Your task to perform on an android device: open app "HBO Max: Stream TV & Movies" (install if not already installed) Image 0: 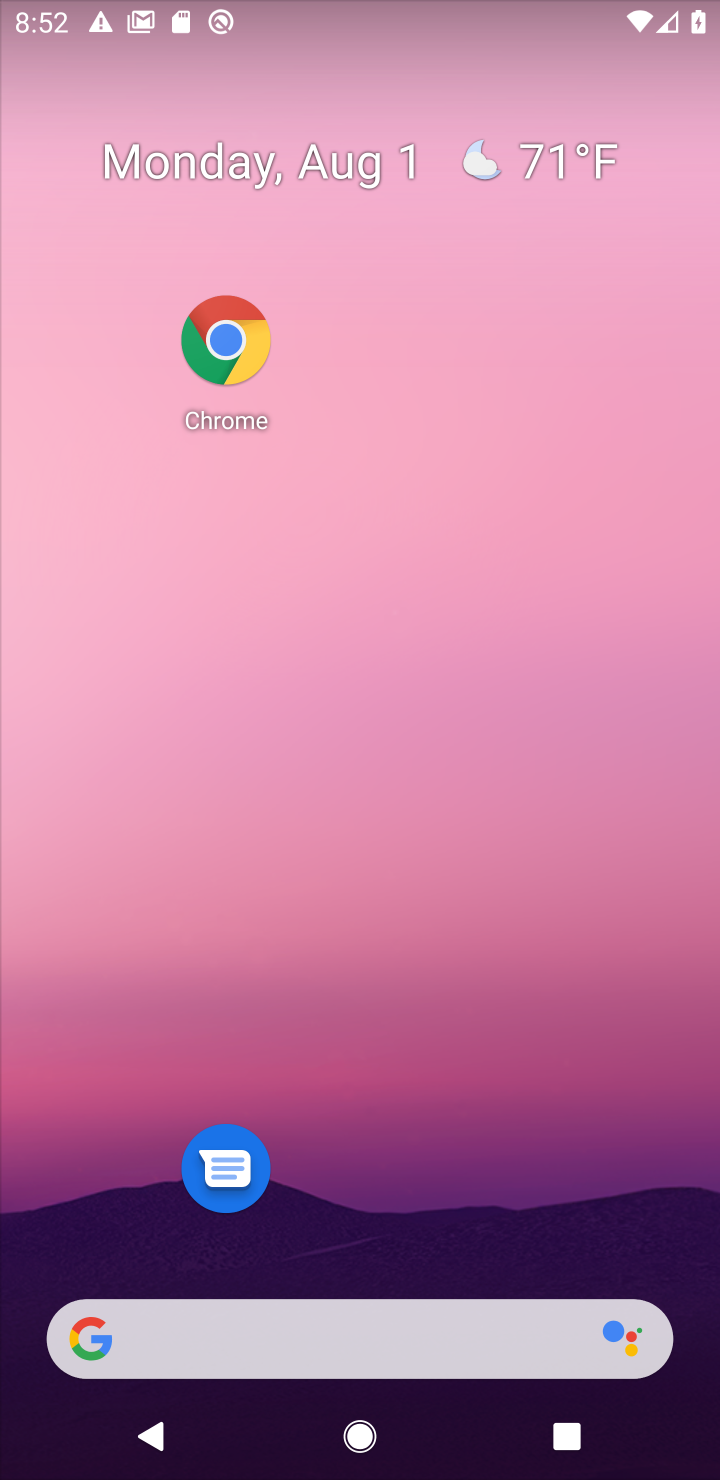
Step 0: drag from (478, 836) to (460, 742)
Your task to perform on an android device: open app "HBO Max: Stream TV & Movies" (install if not already installed) Image 1: 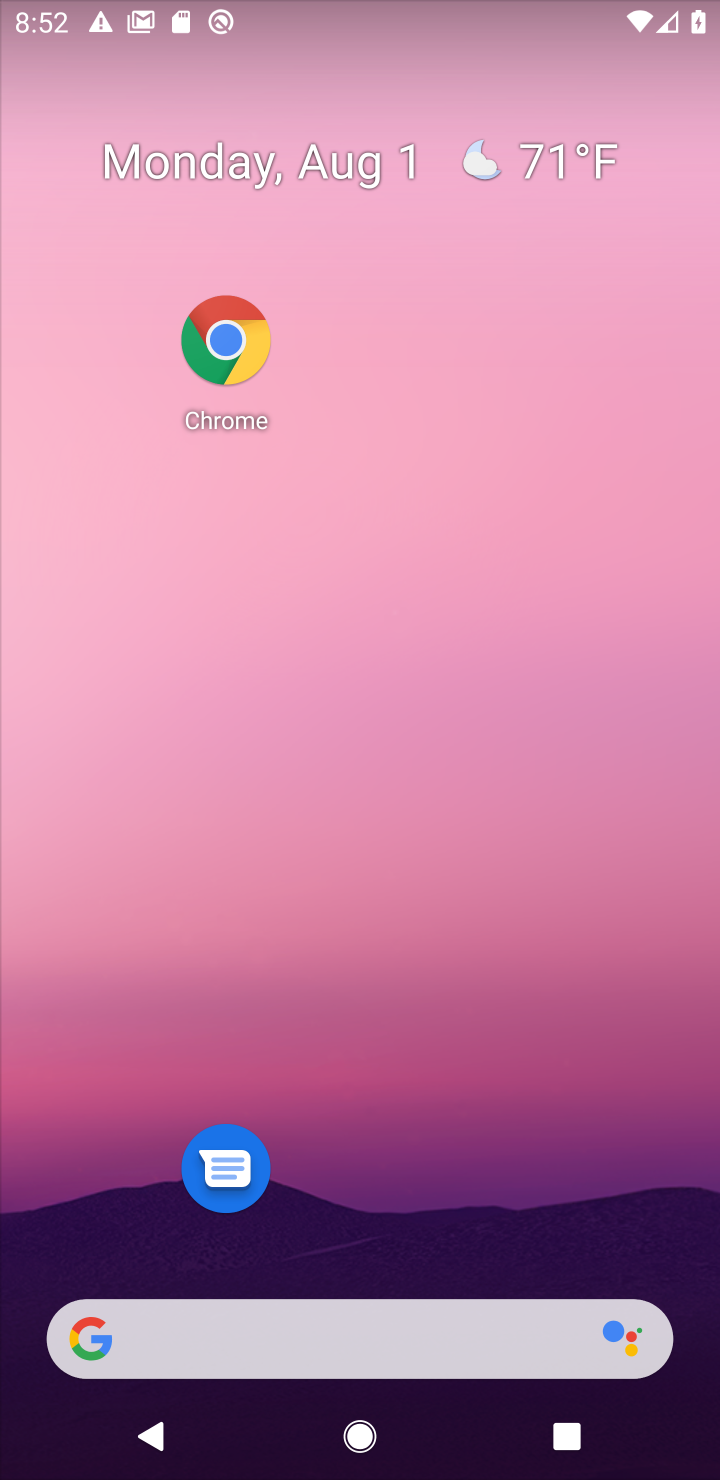
Step 1: click (379, 574)
Your task to perform on an android device: open app "HBO Max: Stream TV & Movies" (install if not already installed) Image 2: 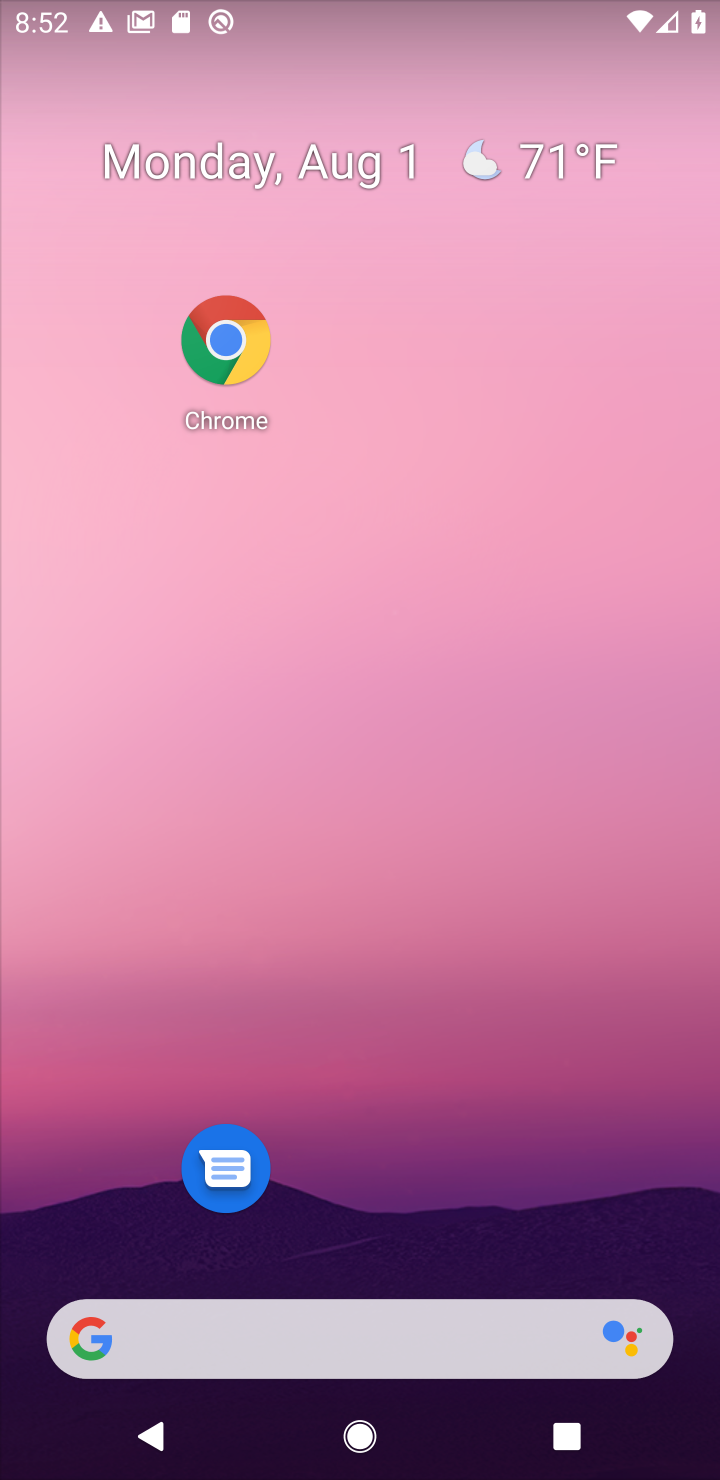
Step 2: drag from (362, 1035) to (400, 122)
Your task to perform on an android device: open app "HBO Max: Stream TV & Movies" (install if not already installed) Image 3: 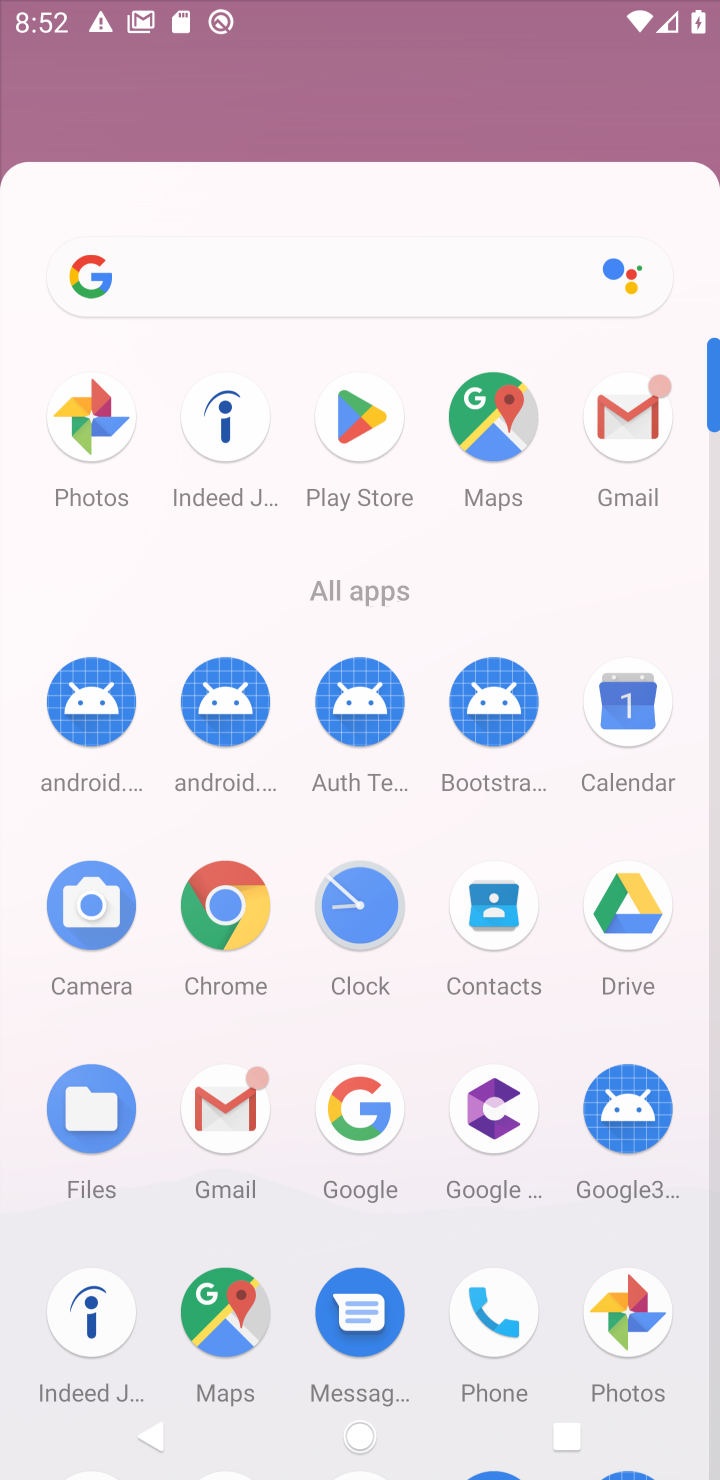
Step 3: drag from (392, 496) to (491, 183)
Your task to perform on an android device: open app "HBO Max: Stream TV & Movies" (install if not already installed) Image 4: 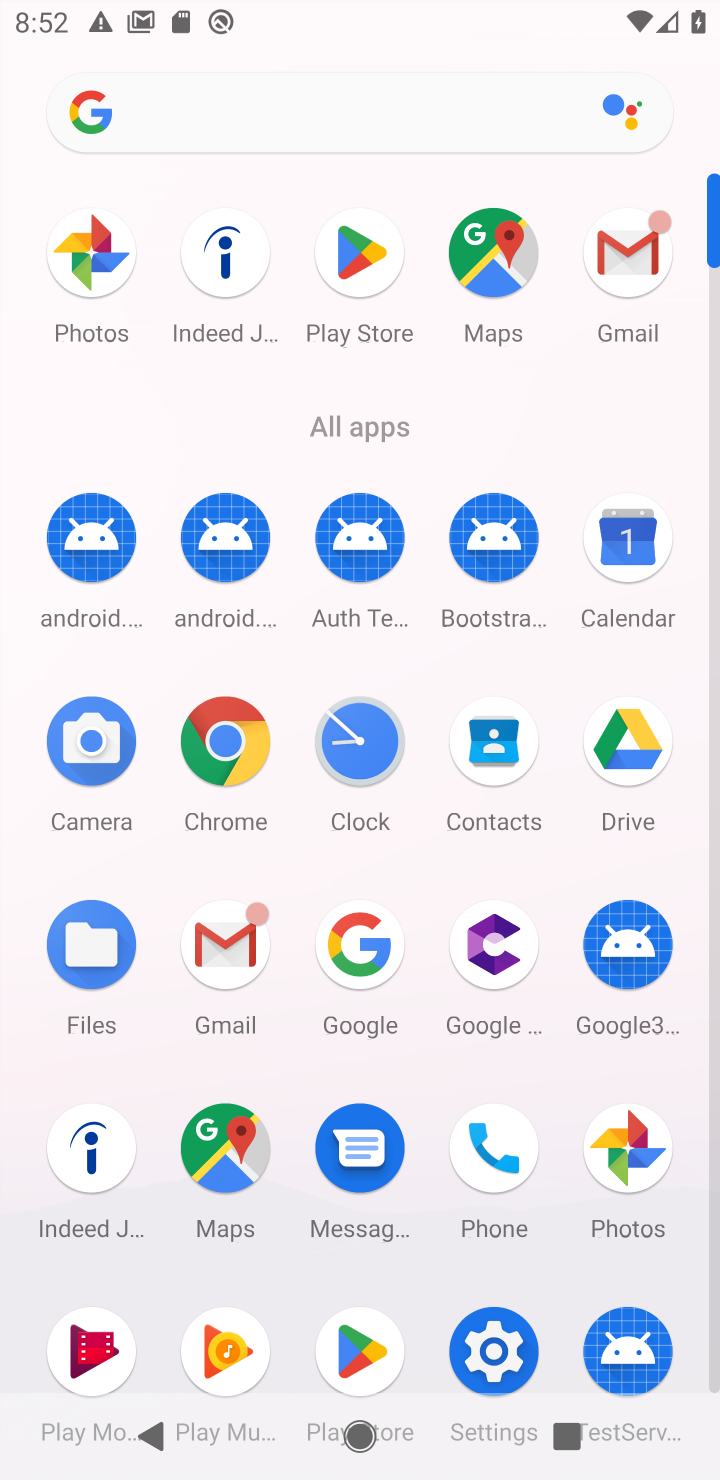
Step 4: type "HBO Max"
Your task to perform on an android device: open app "HBO Max: Stream TV & Movies" (install if not already installed) Image 5: 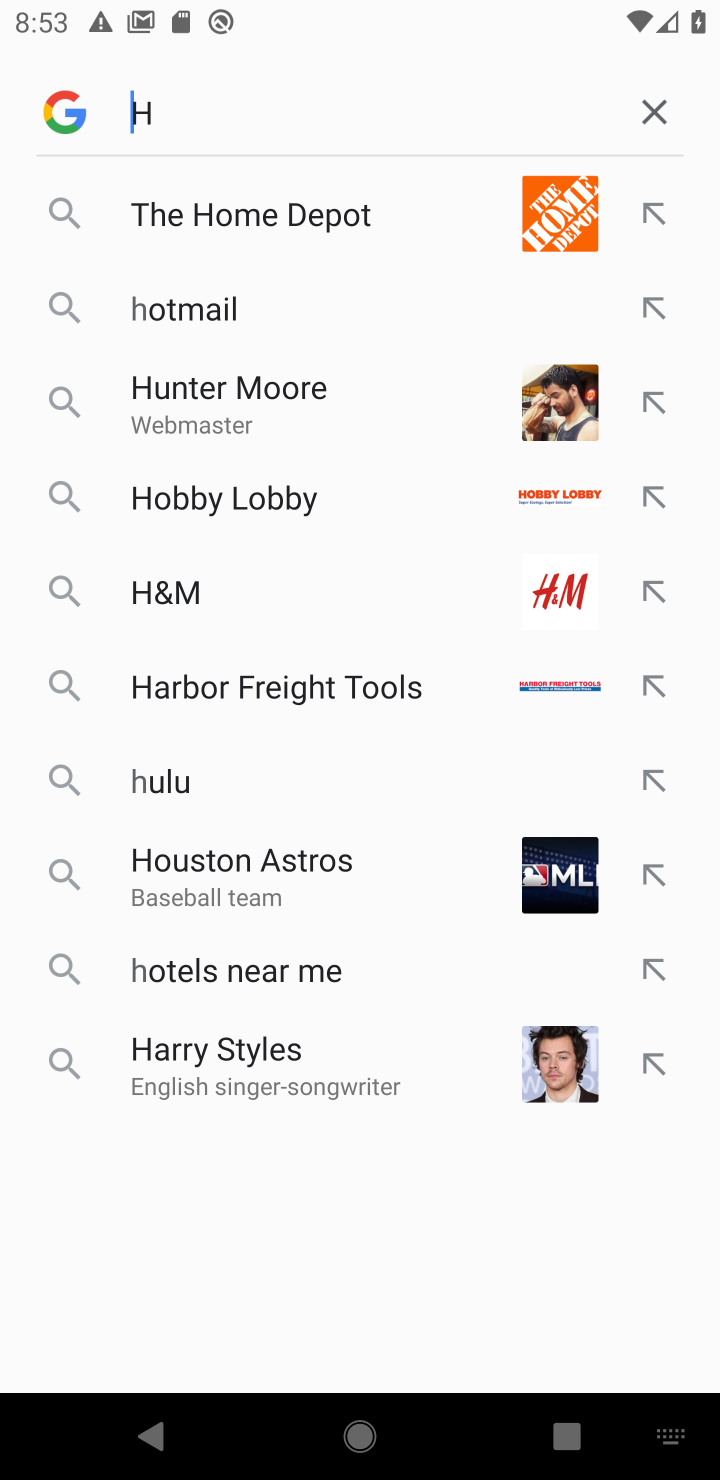
Step 5: click (648, 111)
Your task to perform on an android device: open app "HBO Max: Stream TV & Movies" (install if not already installed) Image 6: 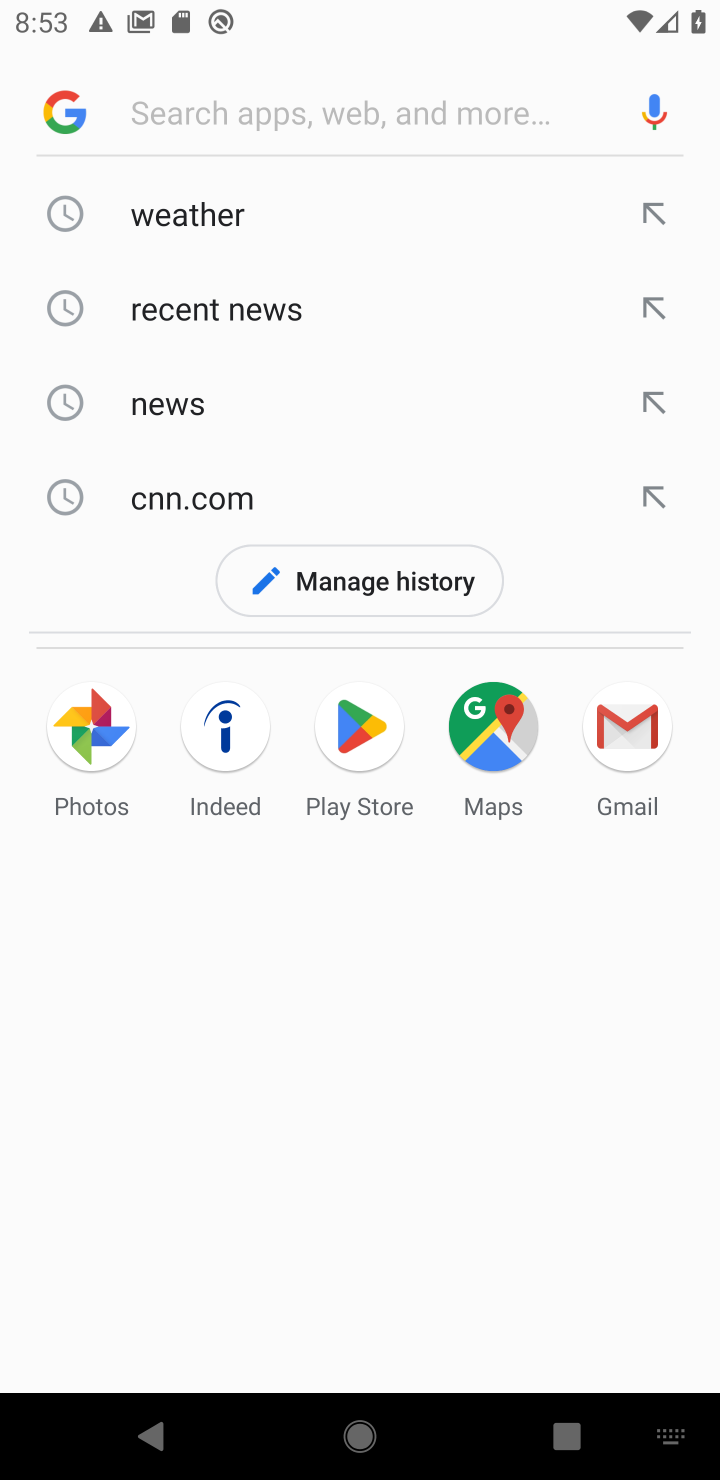
Step 6: press back button
Your task to perform on an android device: open app "HBO Max: Stream TV & Movies" (install if not already installed) Image 7: 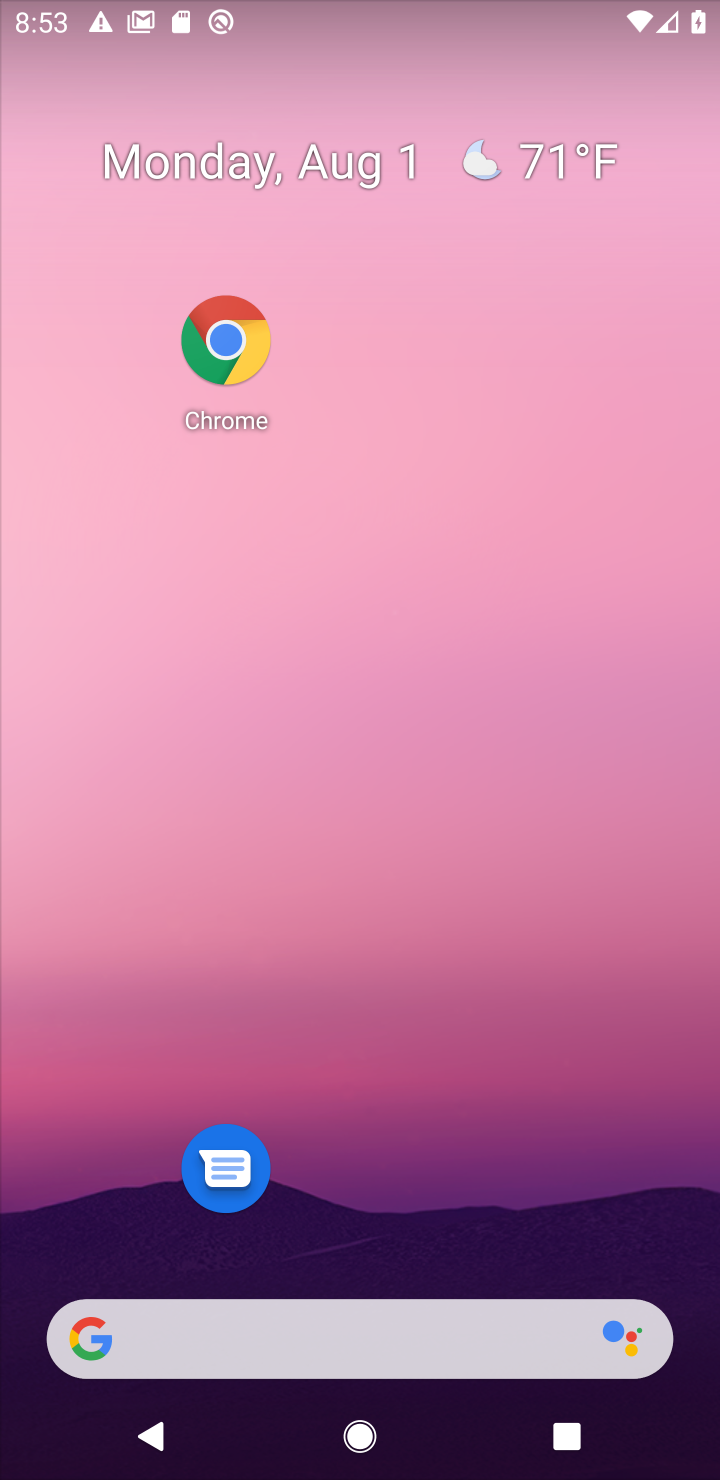
Step 7: drag from (373, 1229) to (423, 19)
Your task to perform on an android device: open app "HBO Max: Stream TV & Movies" (install if not already installed) Image 8: 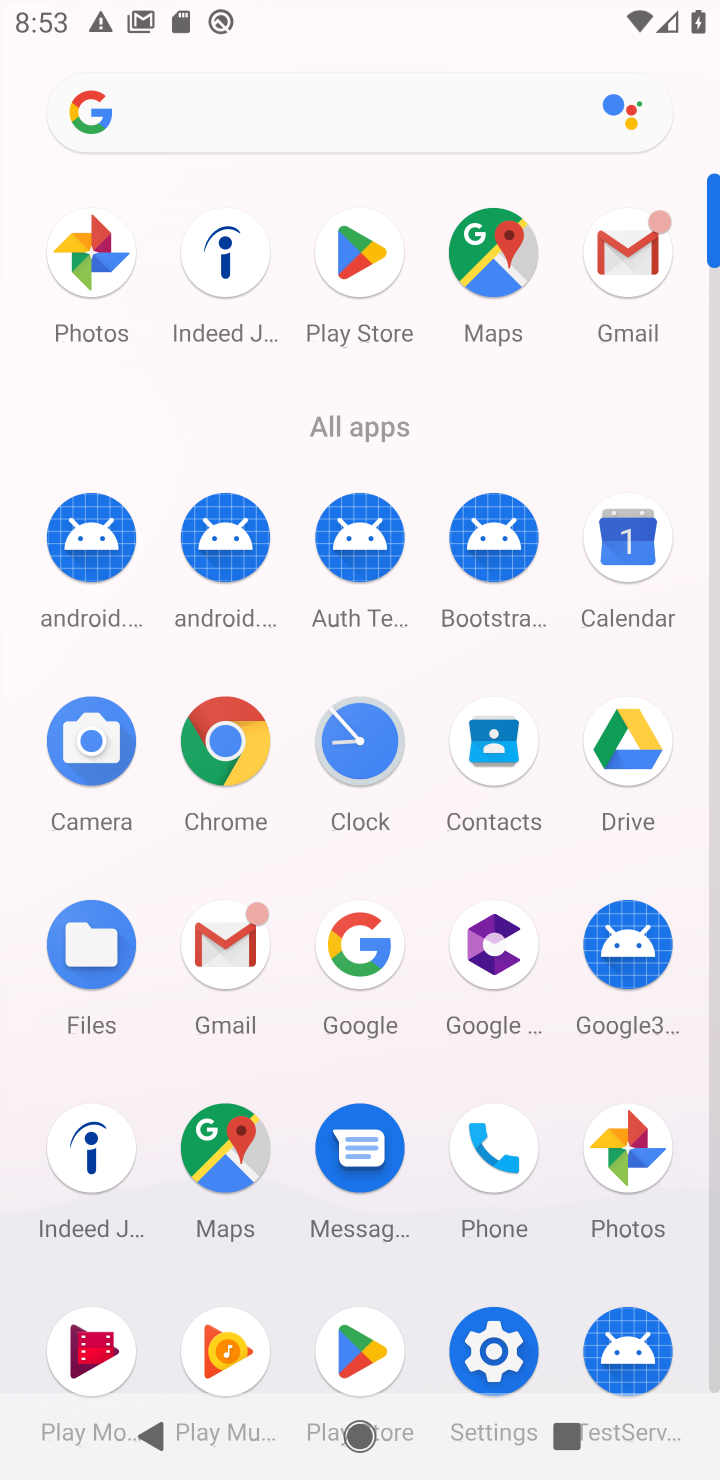
Step 8: click (364, 1352)
Your task to perform on an android device: open app "HBO Max: Stream TV & Movies" (install if not already installed) Image 9: 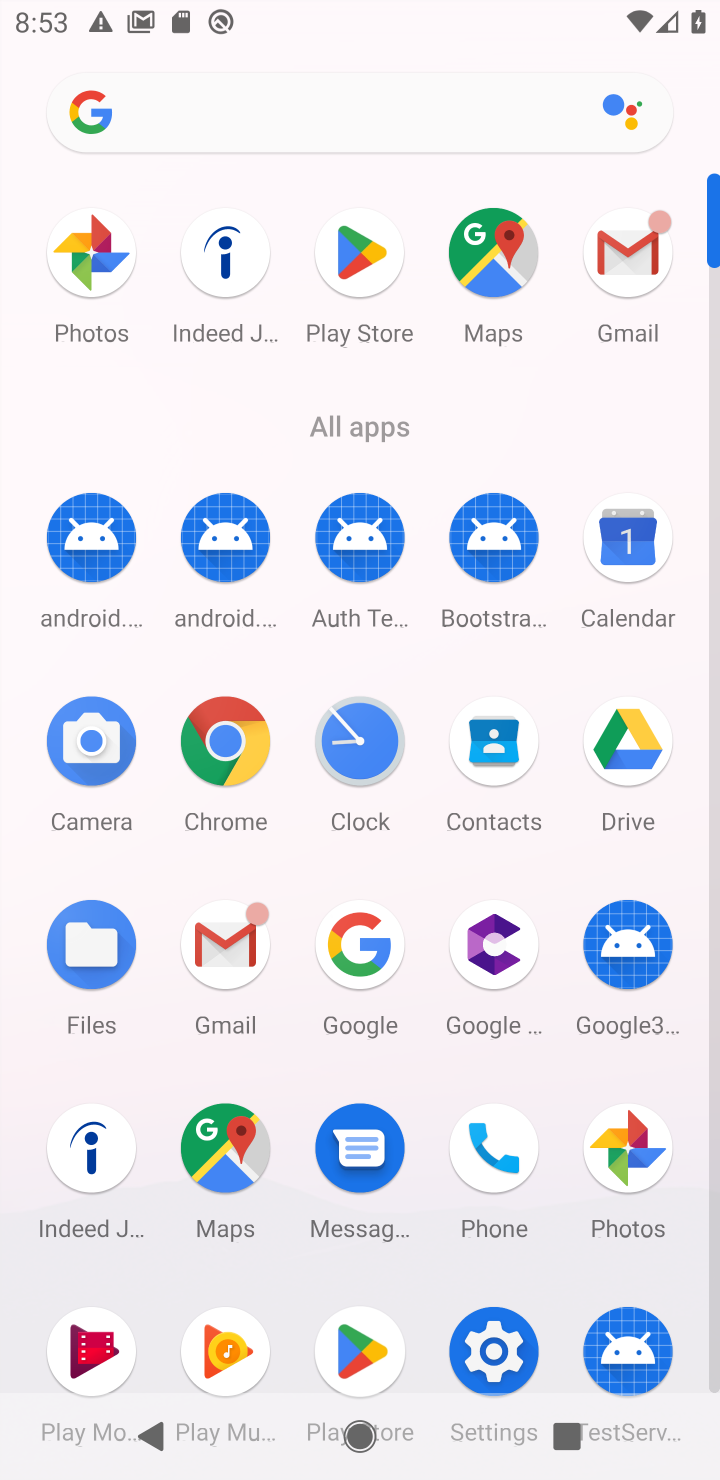
Step 9: click (377, 1358)
Your task to perform on an android device: open app "HBO Max: Stream TV & Movies" (install if not already installed) Image 10: 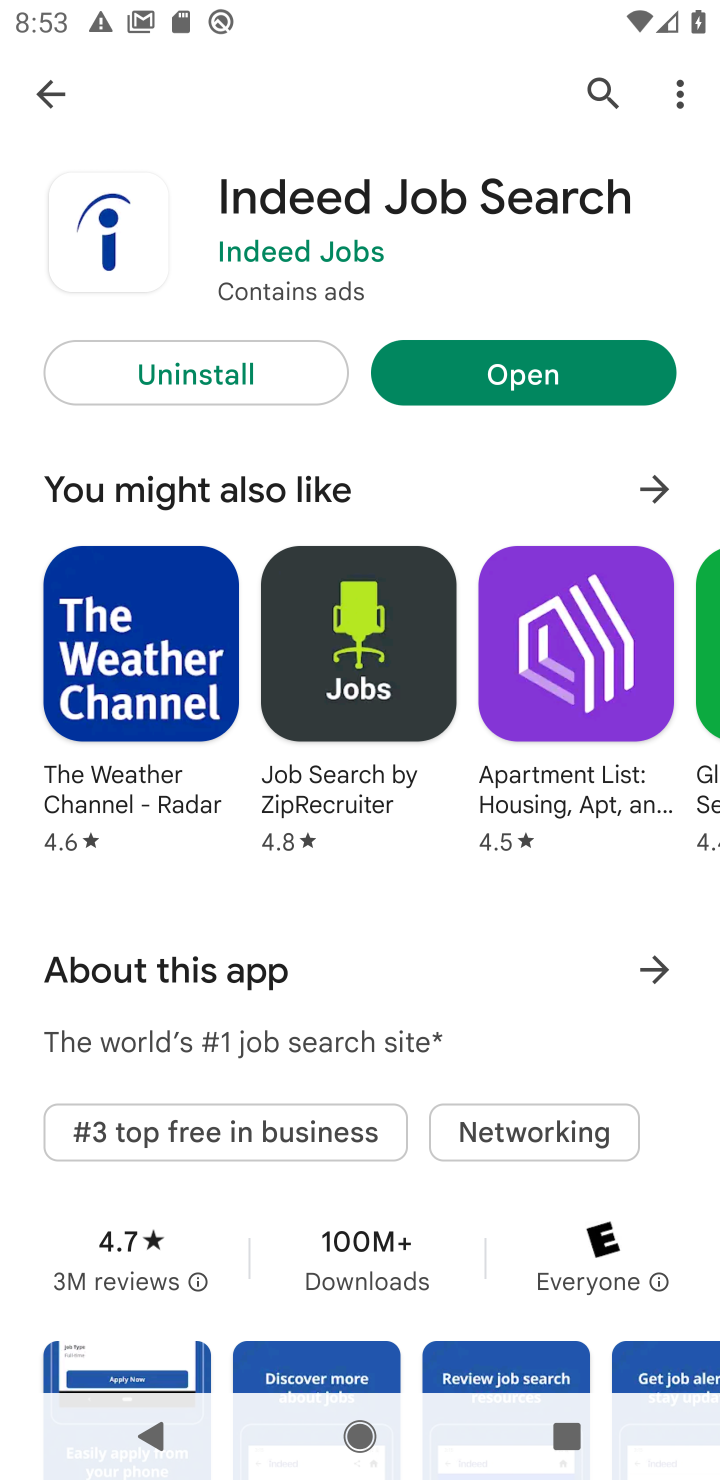
Step 10: click (51, 97)
Your task to perform on an android device: open app "HBO Max: Stream TV & Movies" (install if not already installed) Image 11: 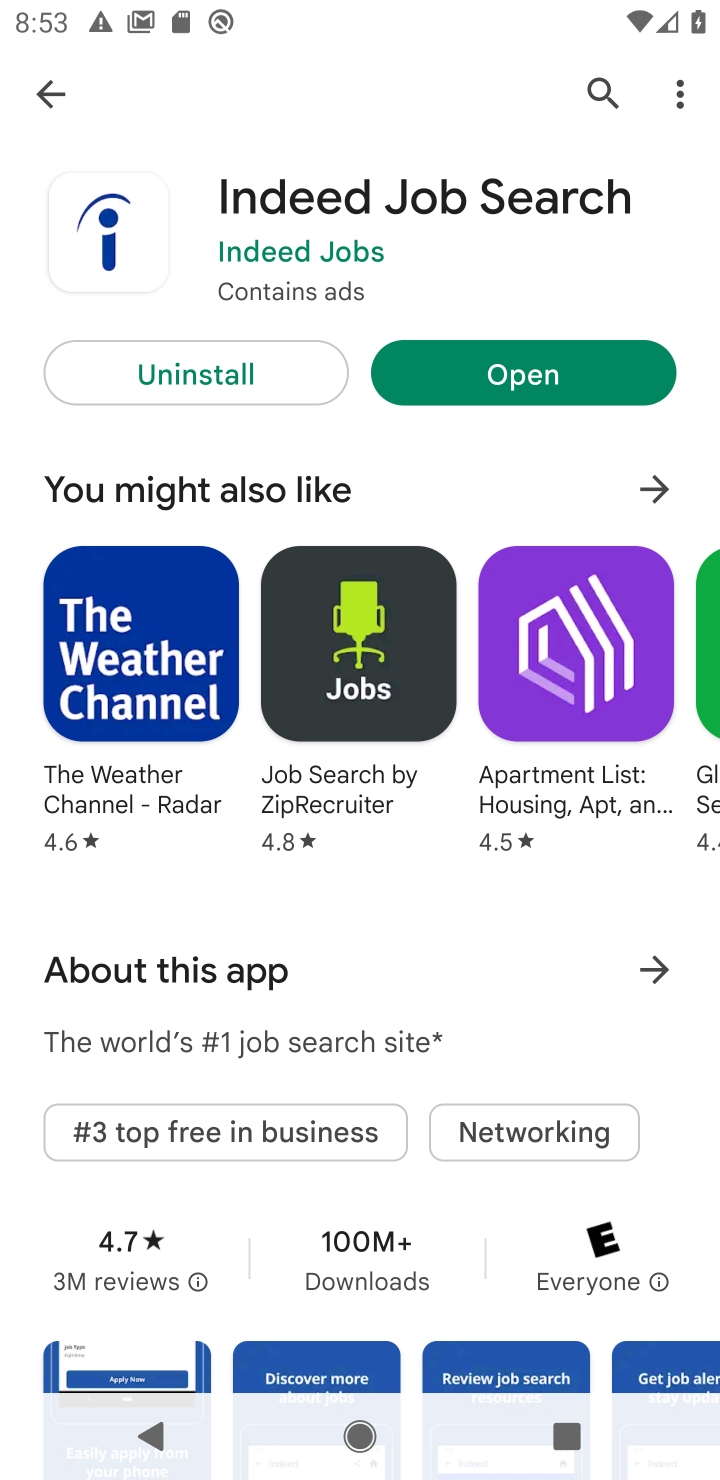
Step 11: click (48, 119)
Your task to perform on an android device: open app "HBO Max: Stream TV & Movies" (install if not already installed) Image 12: 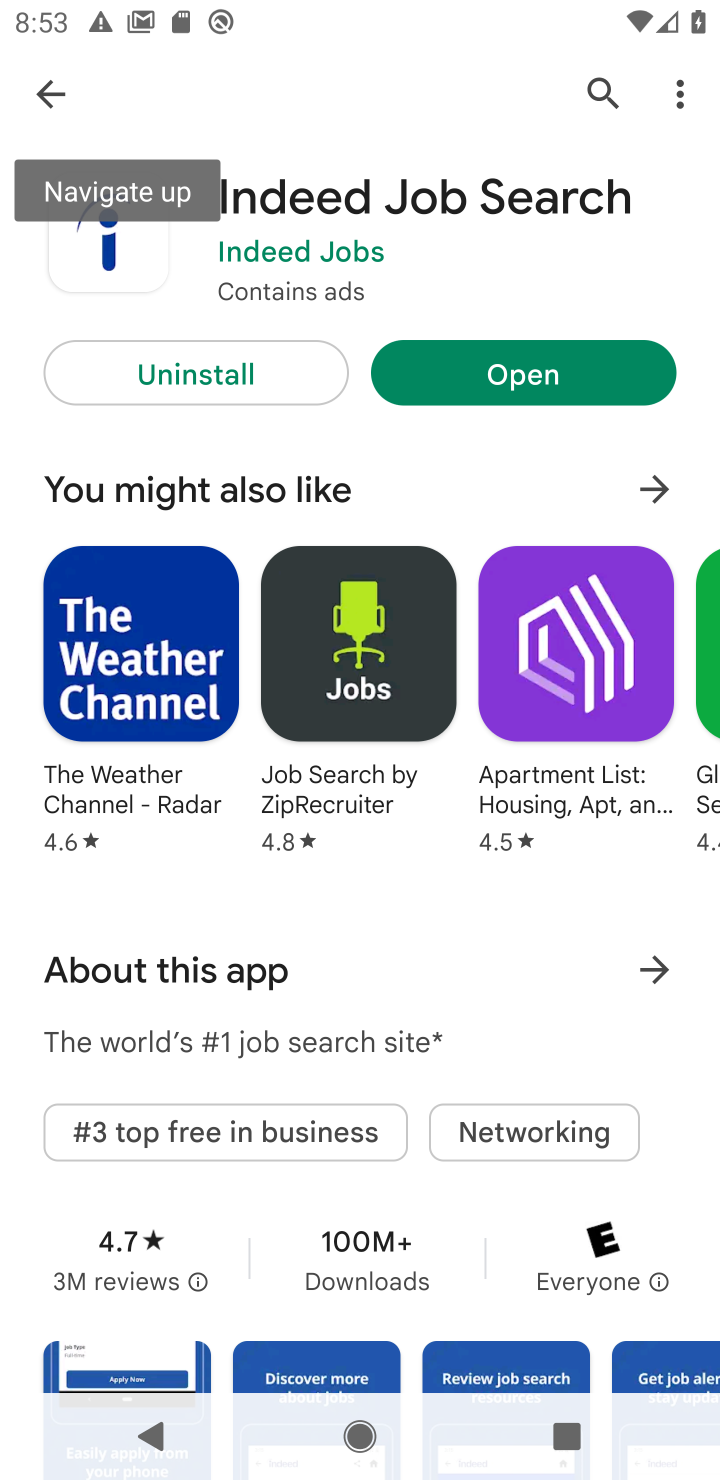
Step 12: click (70, 101)
Your task to perform on an android device: open app "HBO Max: Stream TV & Movies" (install if not already installed) Image 13: 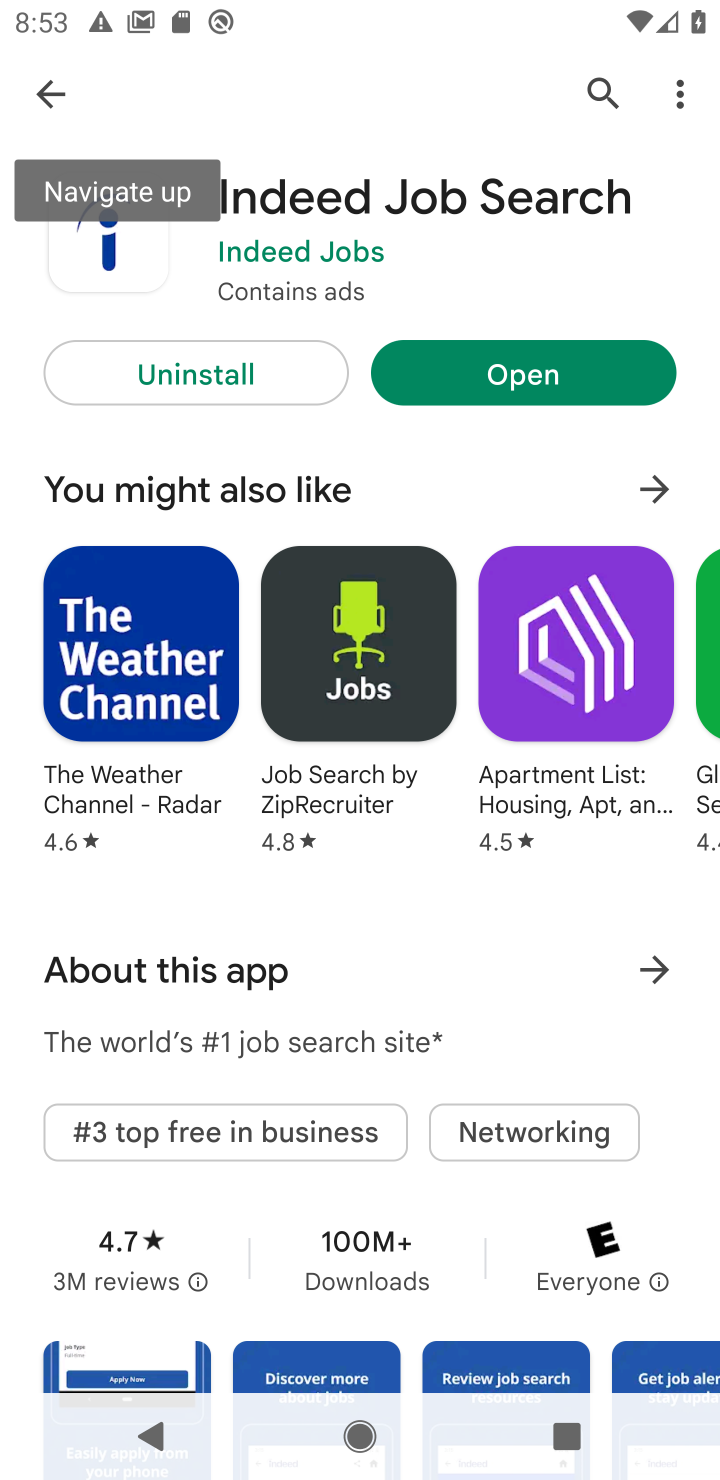
Step 13: click (45, 90)
Your task to perform on an android device: open app "HBO Max: Stream TV & Movies" (install if not already installed) Image 14: 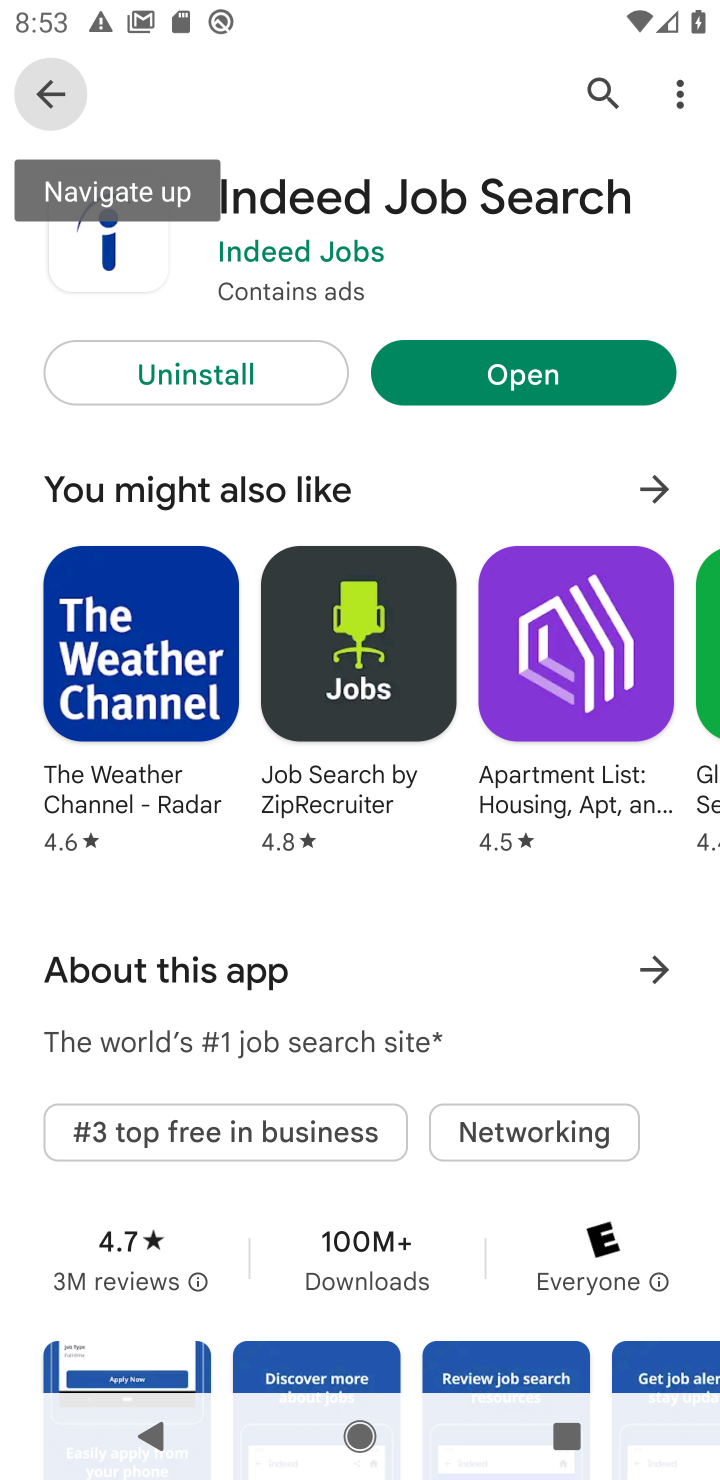
Step 14: click (58, 98)
Your task to perform on an android device: open app "HBO Max: Stream TV & Movies" (install if not already installed) Image 15: 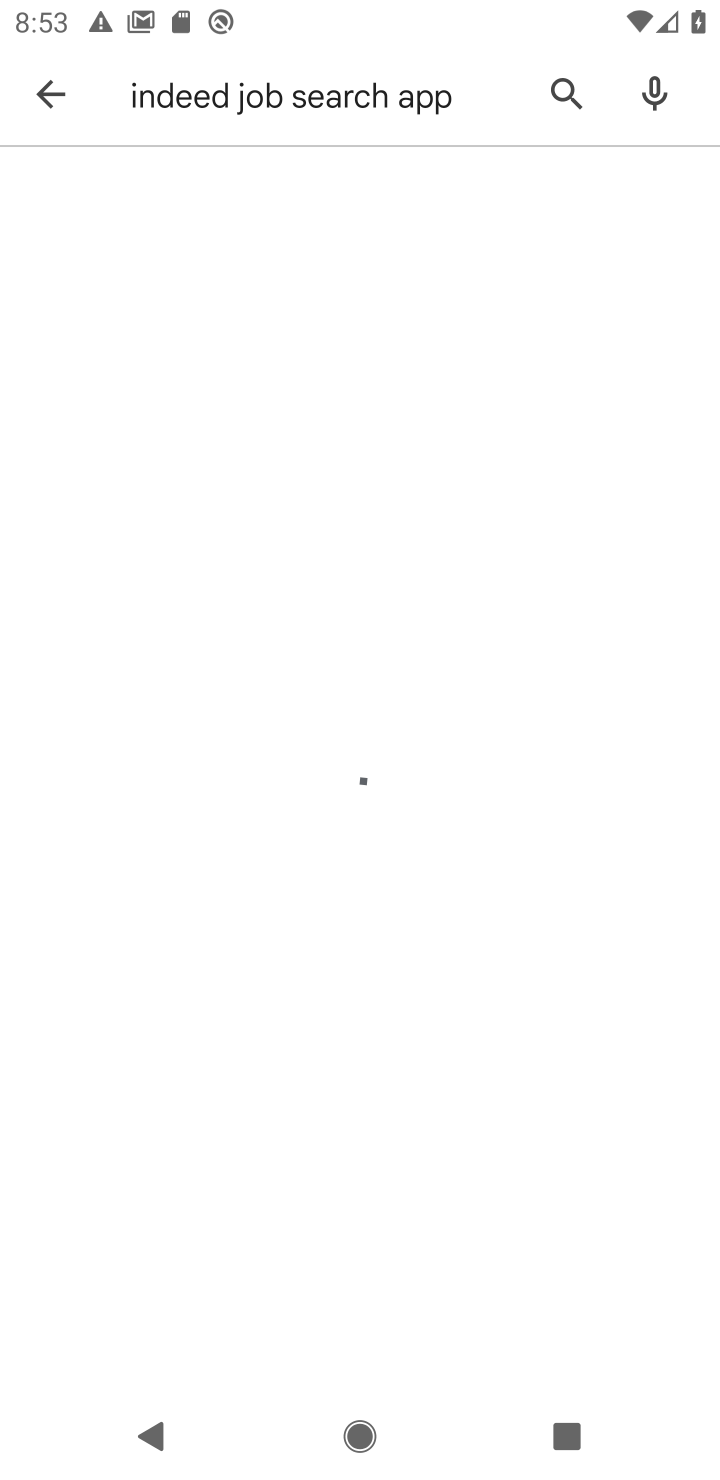
Step 15: click (65, 95)
Your task to perform on an android device: open app "HBO Max: Stream TV & Movies" (install if not already installed) Image 16: 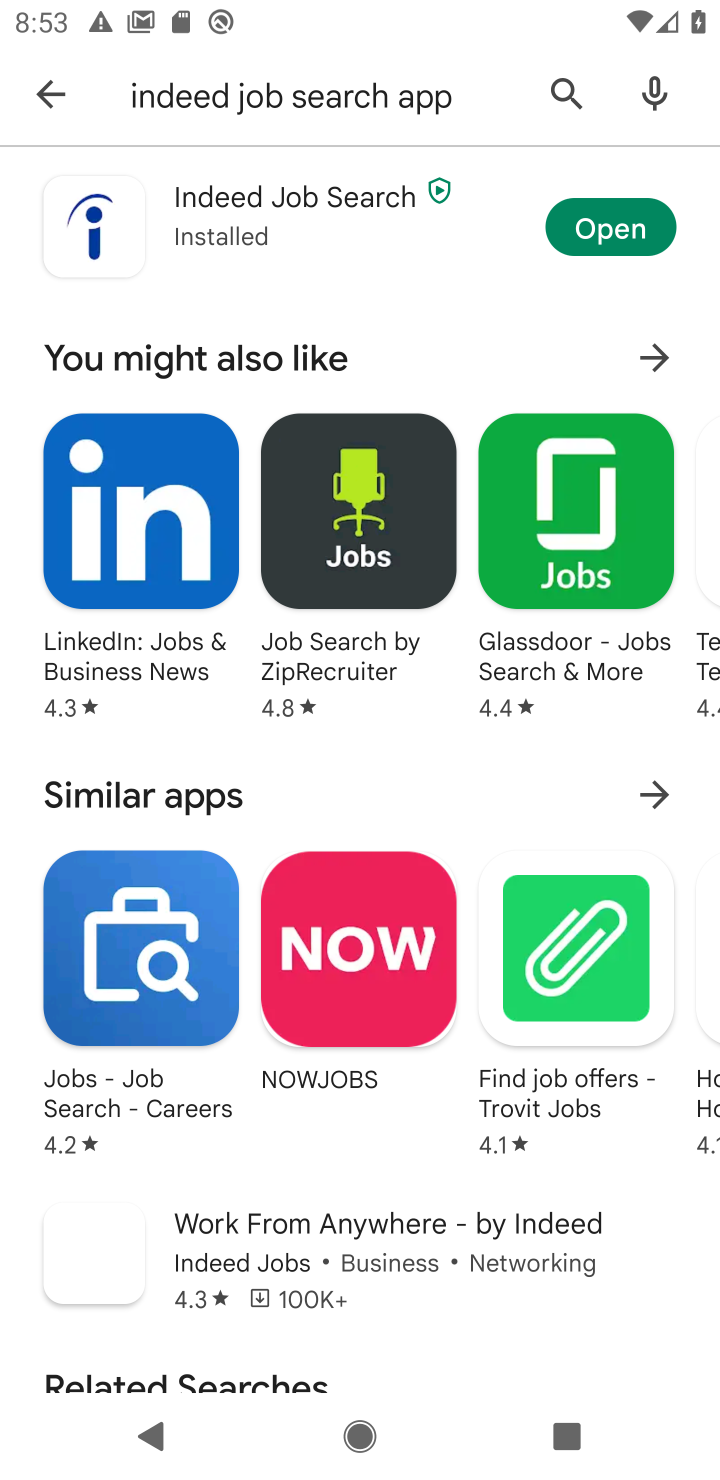
Step 16: click (63, 83)
Your task to perform on an android device: open app "HBO Max: Stream TV & Movies" (install if not already installed) Image 17: 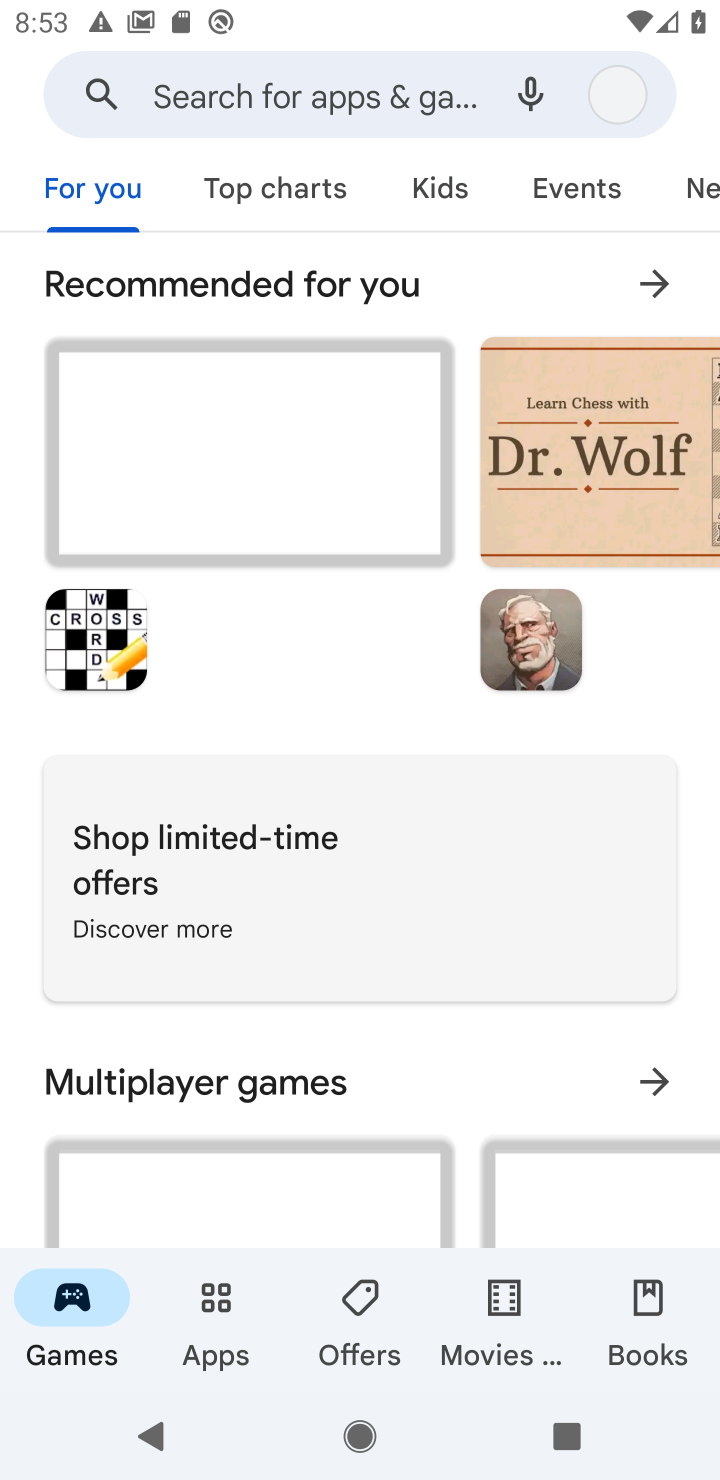
Step 17: click (68, 77)
Your task to perform on an android device: open app "HBO Max: Stream TV & Movies" (install if not already installed) Image 18: 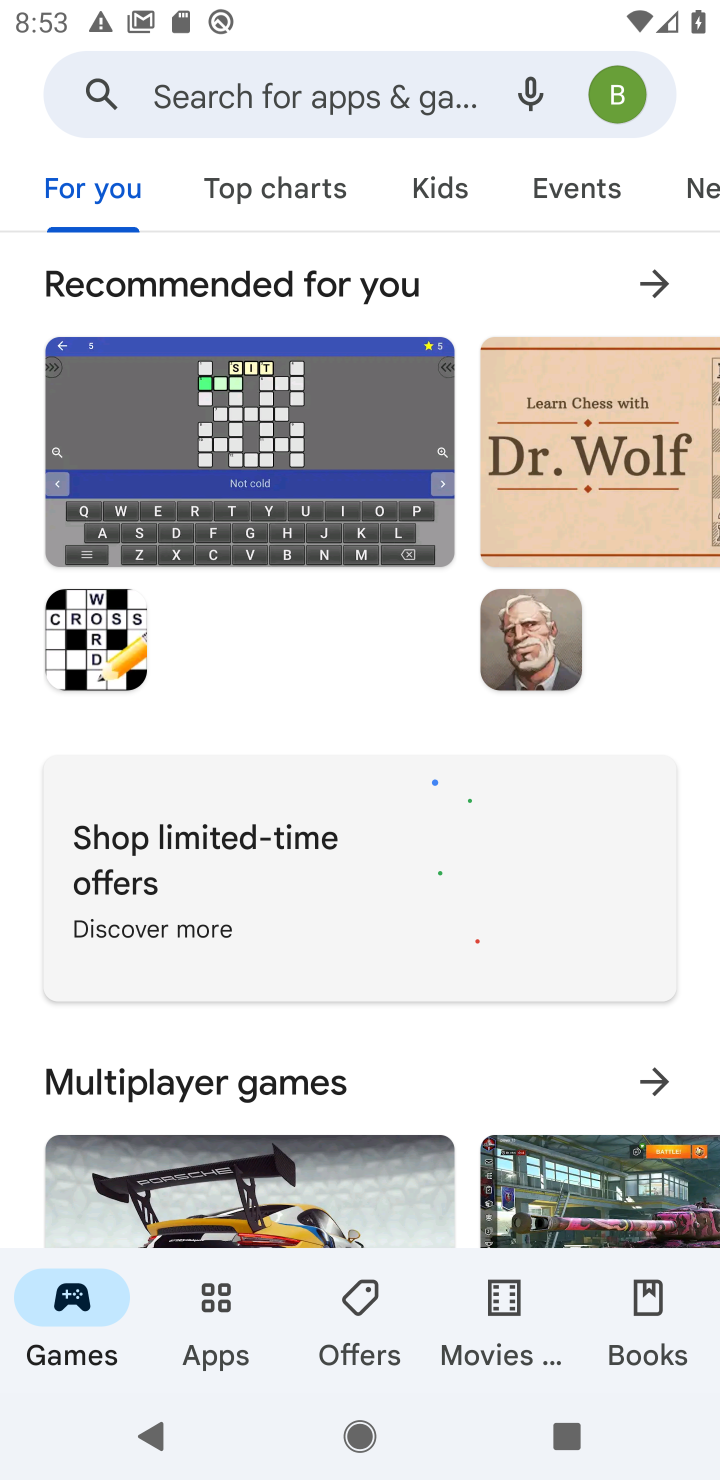
Step 18: click (220, 66)
Your task to perform on an android device: open app "HBO Max: Stream TV & Movies" (install if not already installed) Image 19: 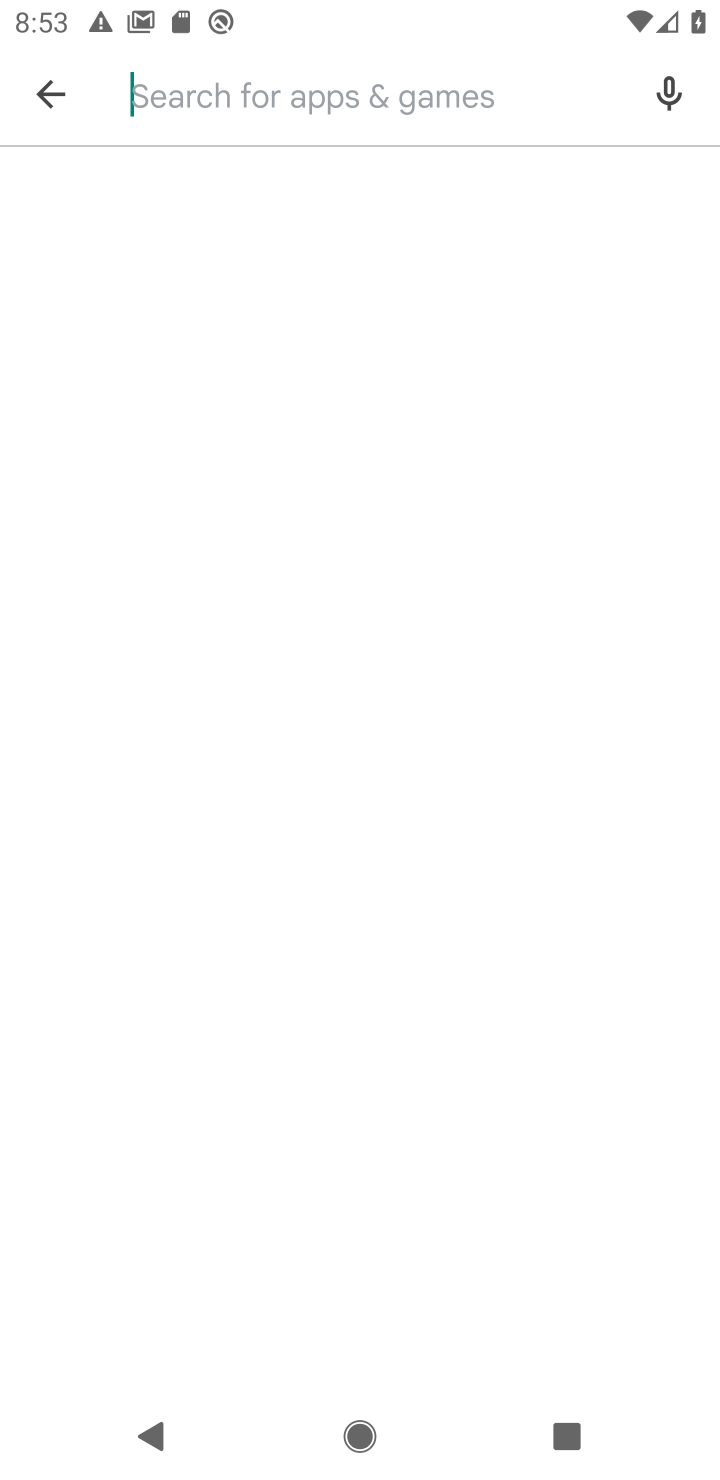
Step 19: click (220, 66)
Your task to perform on an android device: open app "HBO Max: Stream TV & Movies" (install if not already installed) Image 20: 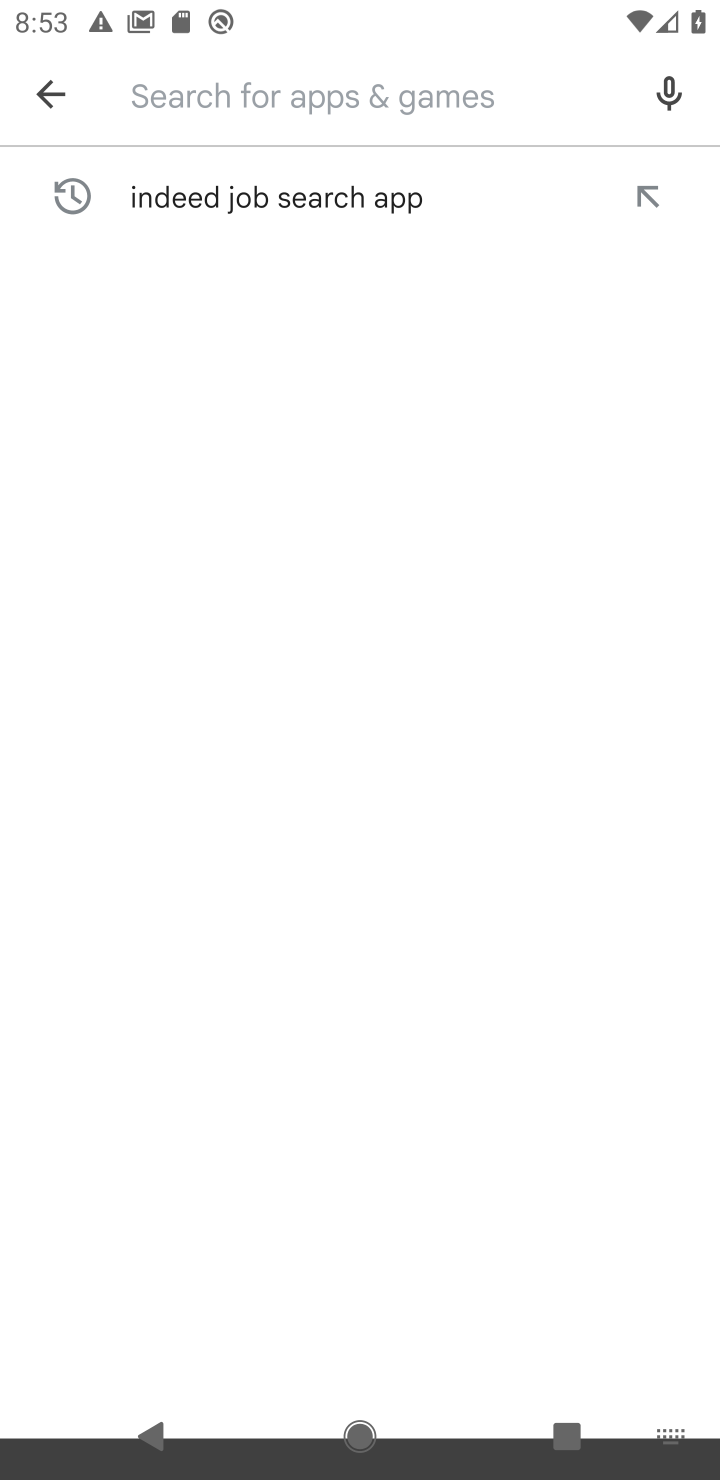
Step 20: click (220, 70)
Your task to perform on an android device: open app "HBO Max: Stream TV & Movies" (install if not already installed) Image 21: 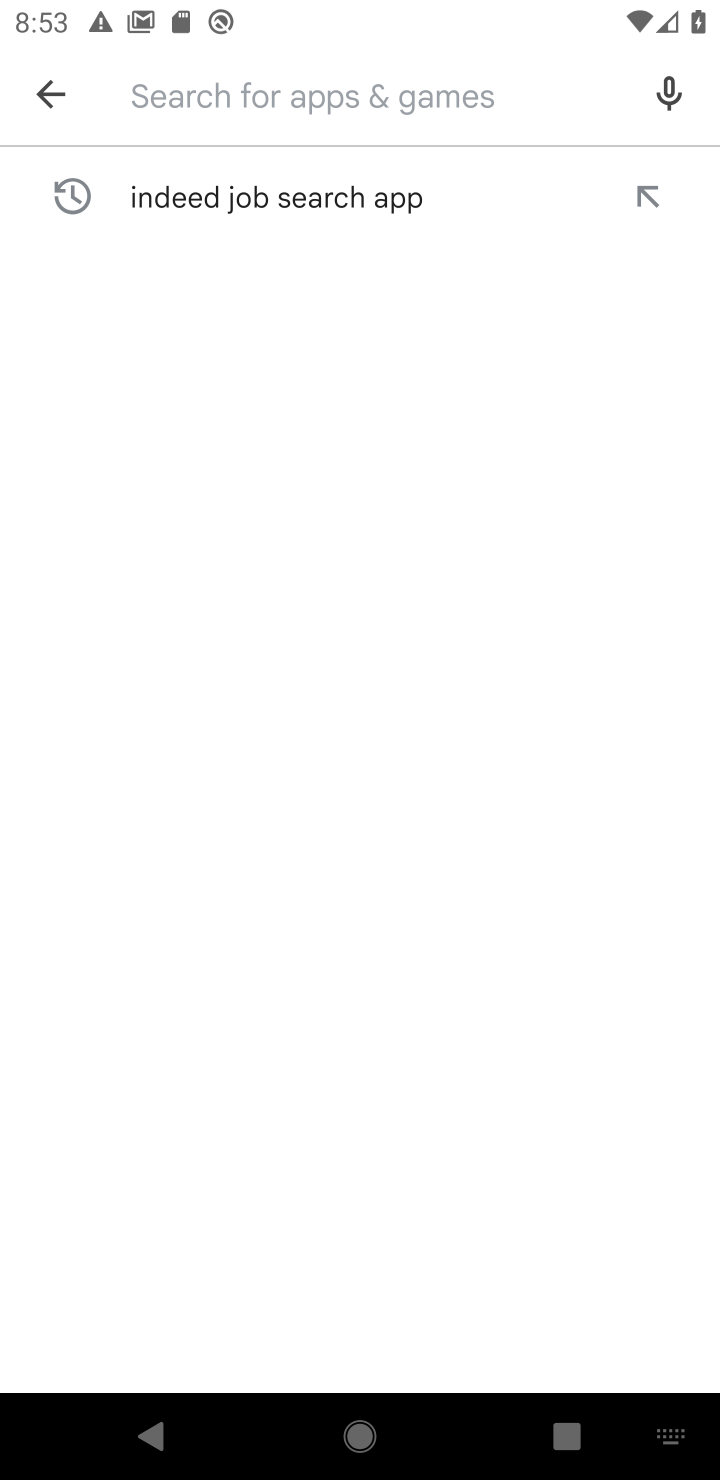
Step 21: type "HBO Max"
Your task to perform on an android device: open app "HBO Max: Stream TV & Movies" (install if not already installed) Image 22: 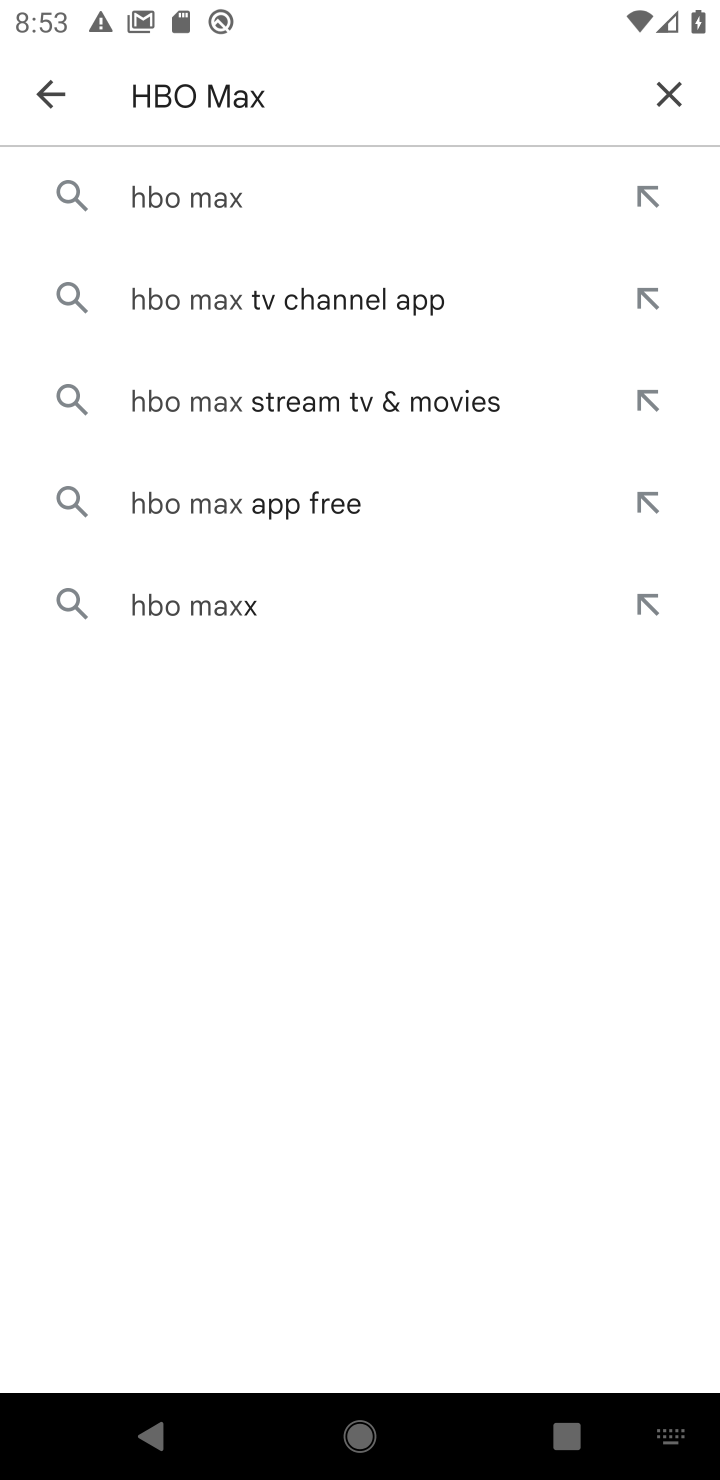
Step 22: click (173, 194)
Your task to perform on an android device: open app "HBO Max: Stream TV & Movies" (install if not already installed) Image 23: 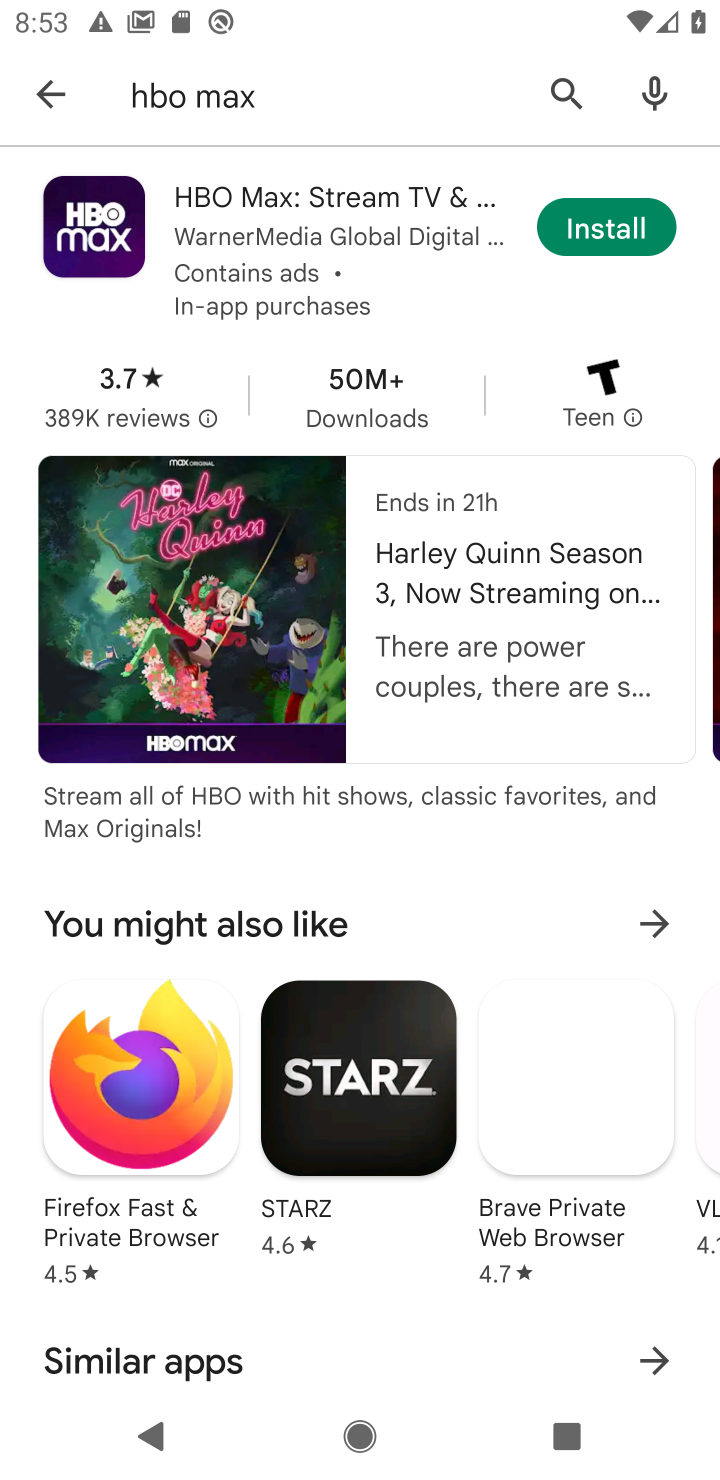
Step 23: click (604, 226)
Your task to perform on an android device: open app "HBO Max: Stream TV & Movies" (install if not already installed) Image 24: 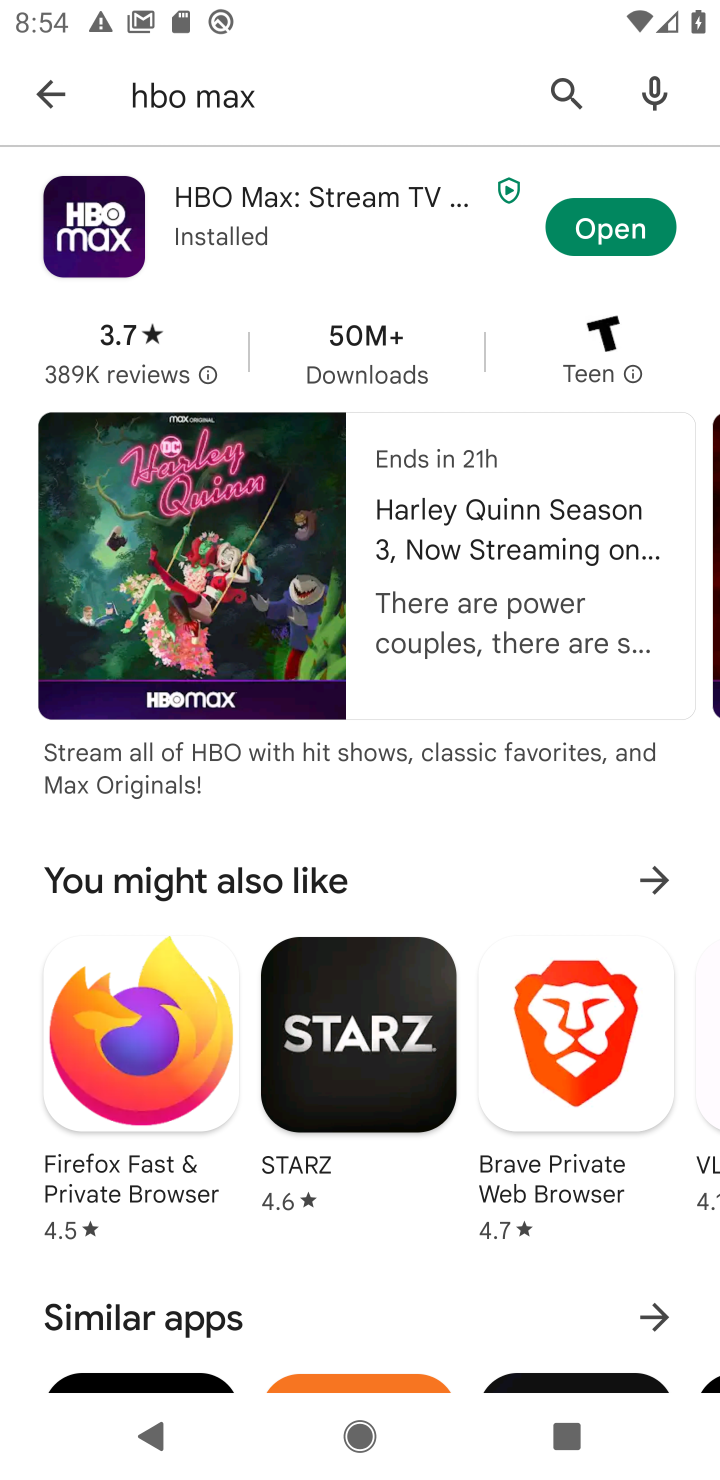
Step 24: click (590, 232)
Your task to perform on an android device: open app "HBO Max: Stream TV & Movies" (install if not already installed) Image 25: 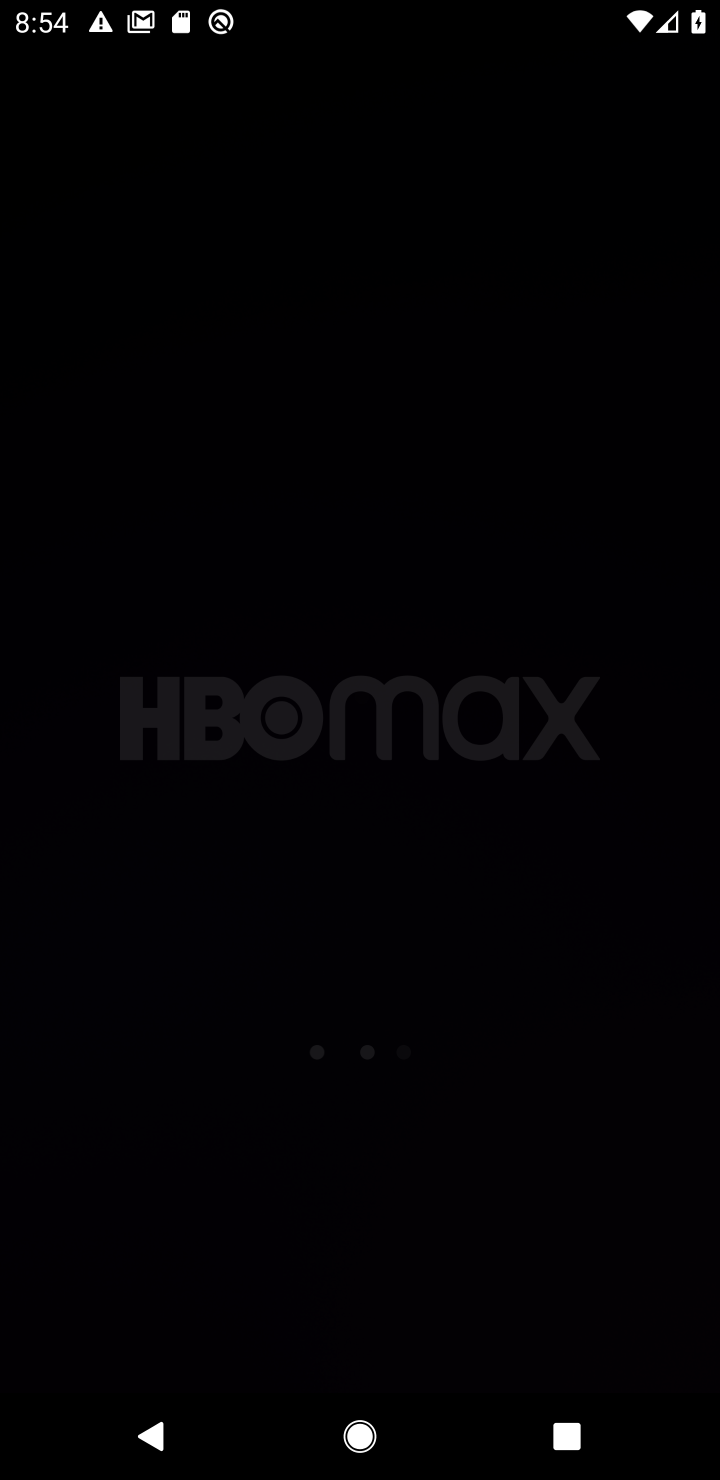
Step 25: drag from (446, 968) to (419, 628)
Your task to perform on an android device: open app "HBO Max: Stream TV & Movies" (install if not already installed) Image 26: 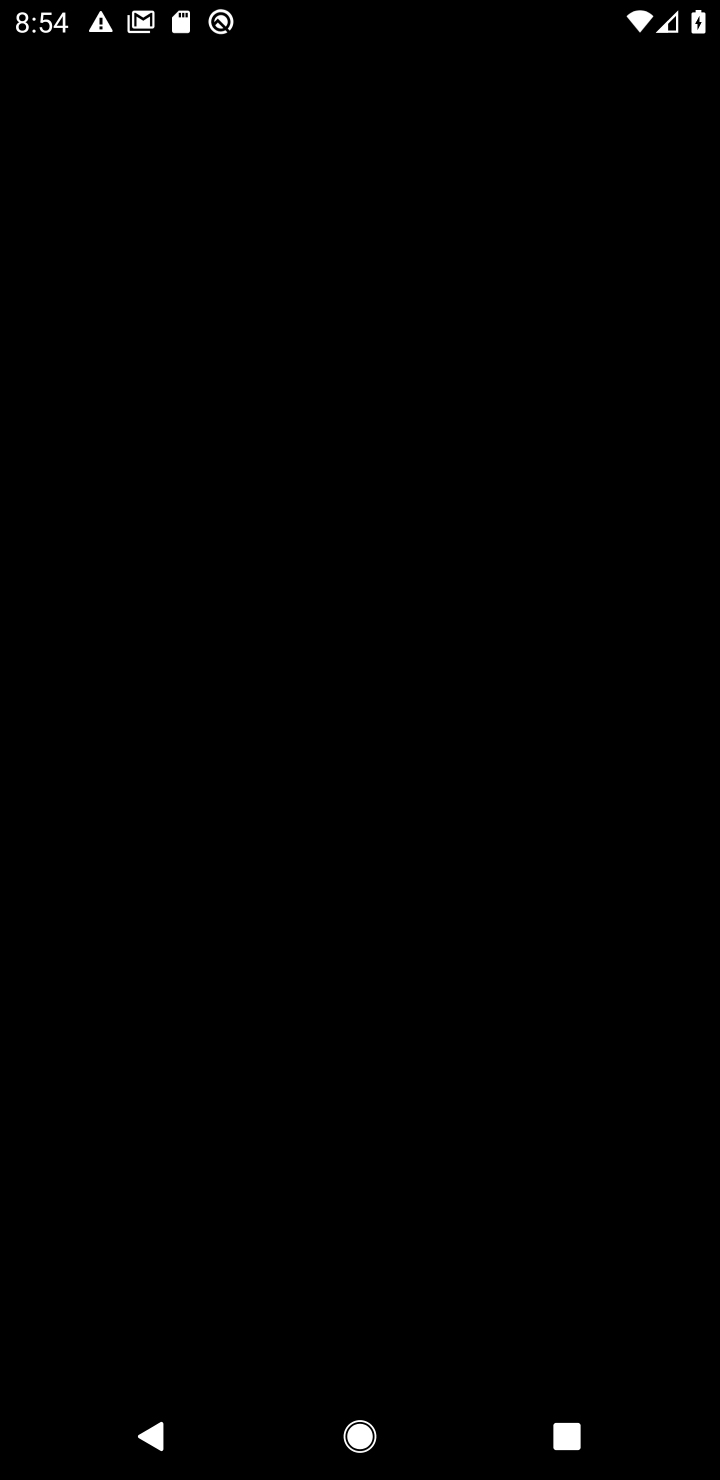
Step 26: drag from (452, 1095) to (452, 622)
Your task to perform on an android device: open app "HBO Max: Stream TV & Movies" (install if not already installed) Image 27: 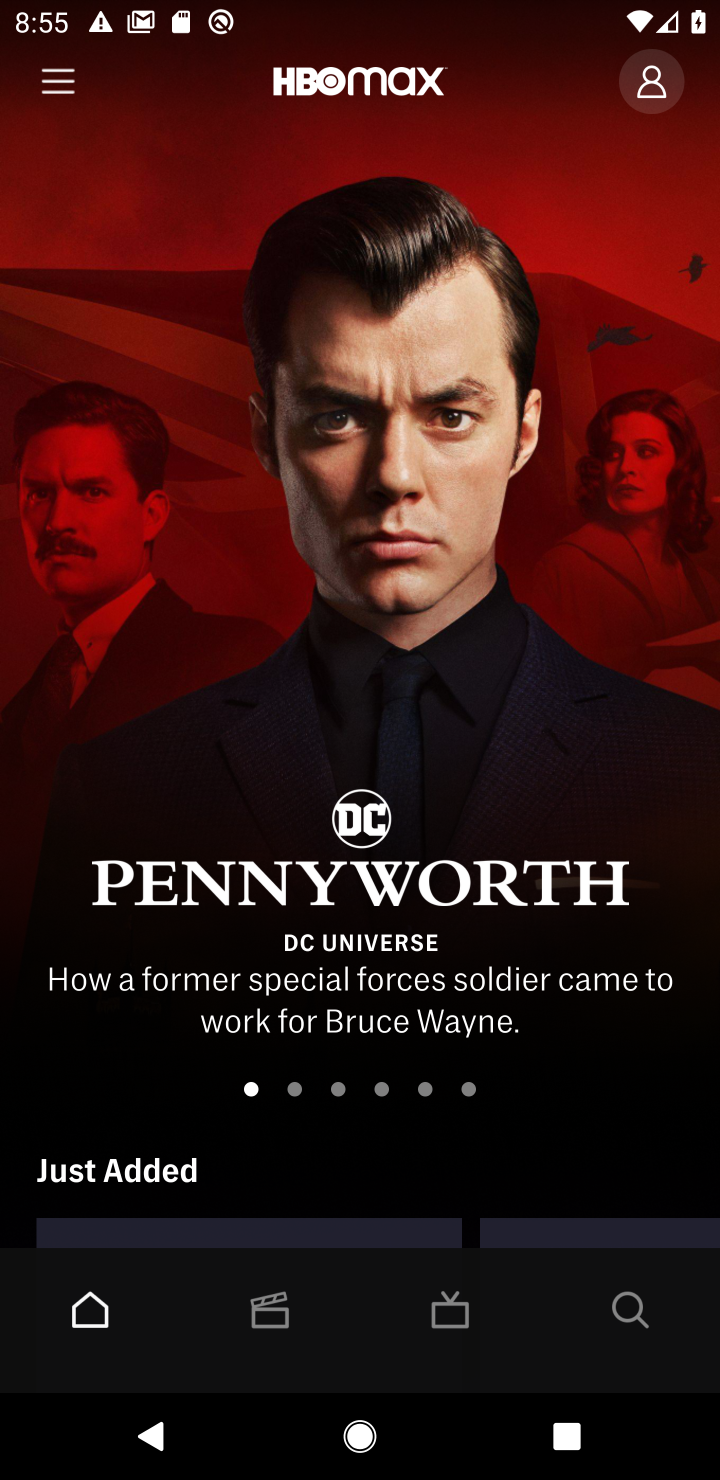
Step 27: click (422, 317)
Your task to perform on an android device: open app "HBO Max: Stream TV & Movies" (install if not already installed) Image 28: 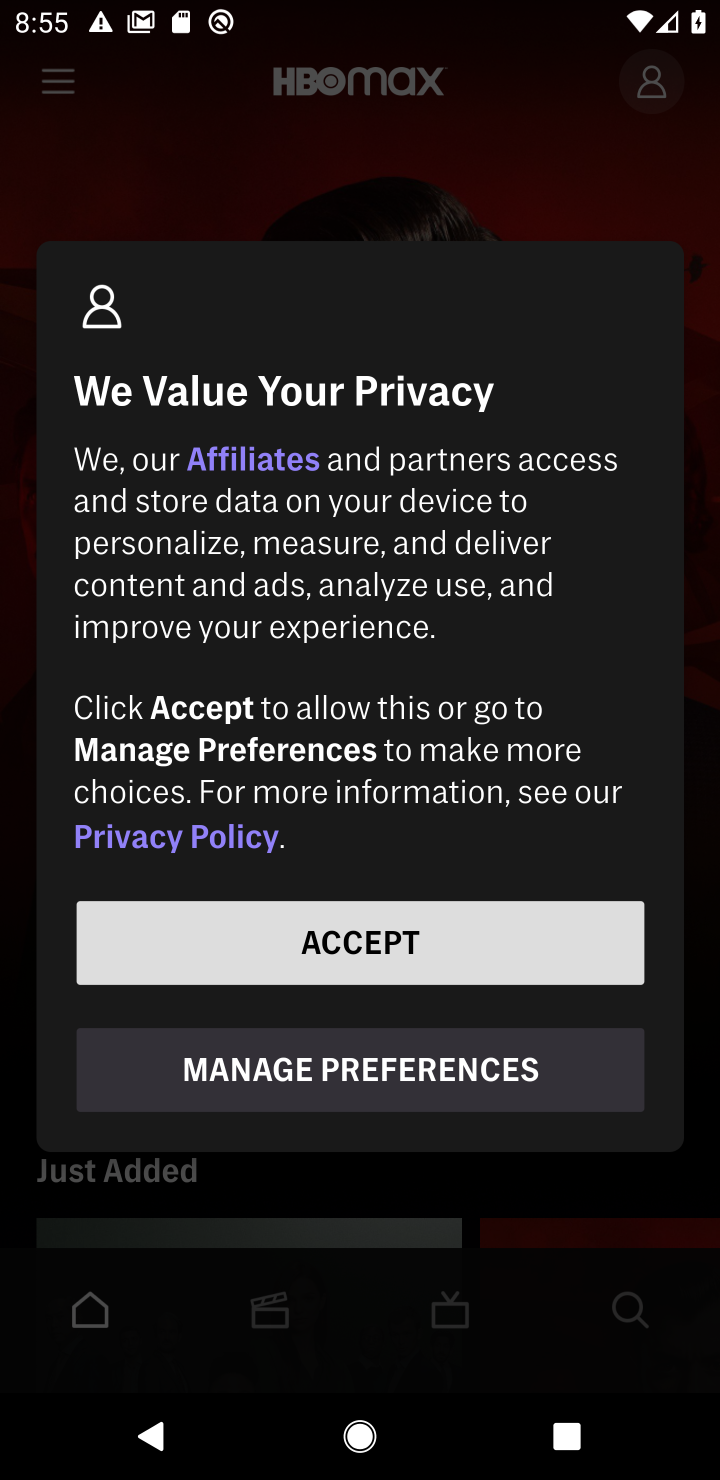
Step 28: click (67, 189)
Your task to perform on an android device: open app "HBO Max: Stream TV & Movies" (install if not already installed) Image 29: 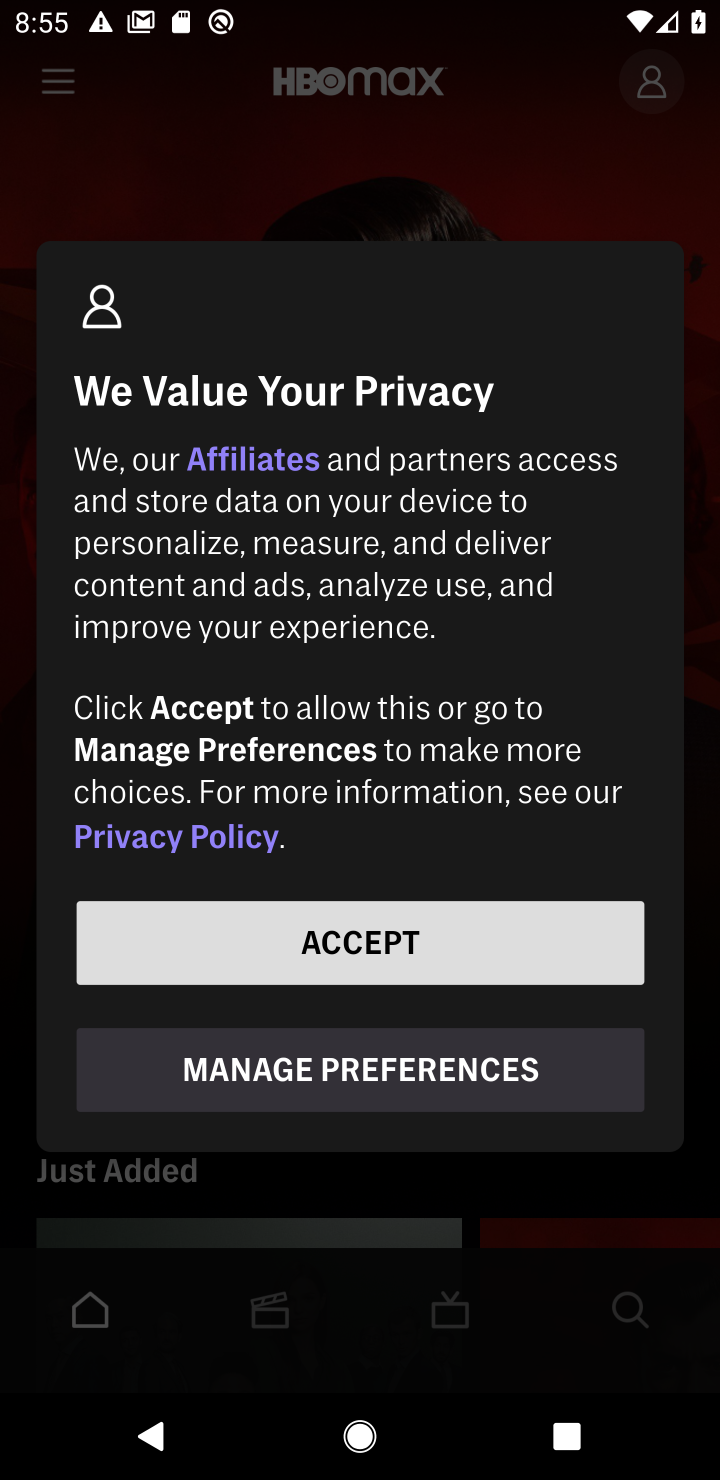
Step 29: click (54, 159)
Your task to perform on an android device: open app "HBO Max: Stream TV & Movies" (install if not already installed) Image 30: 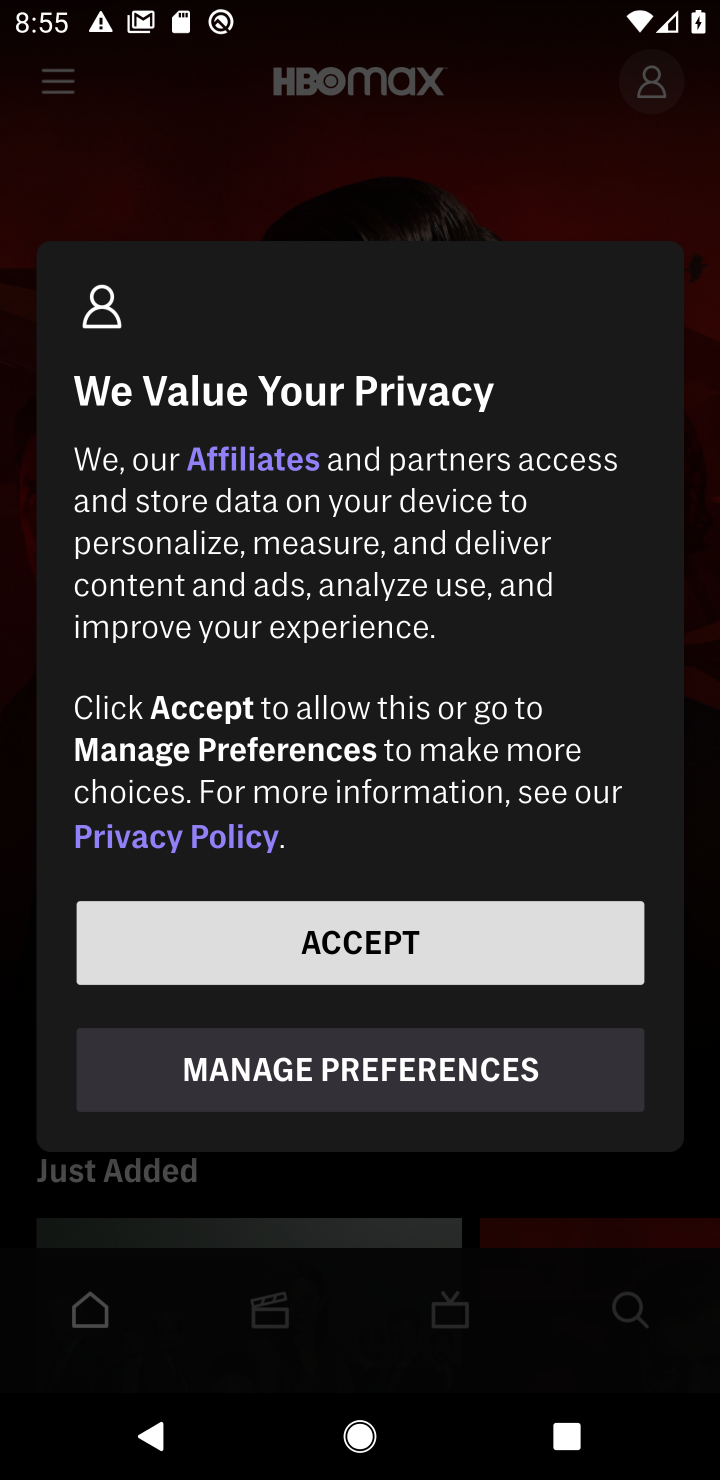
Step 30: click (357, 200)
Your task to perform on an android device: open app "HBO Max: Stream TV & Movies" (install if not already installed) Image 31: 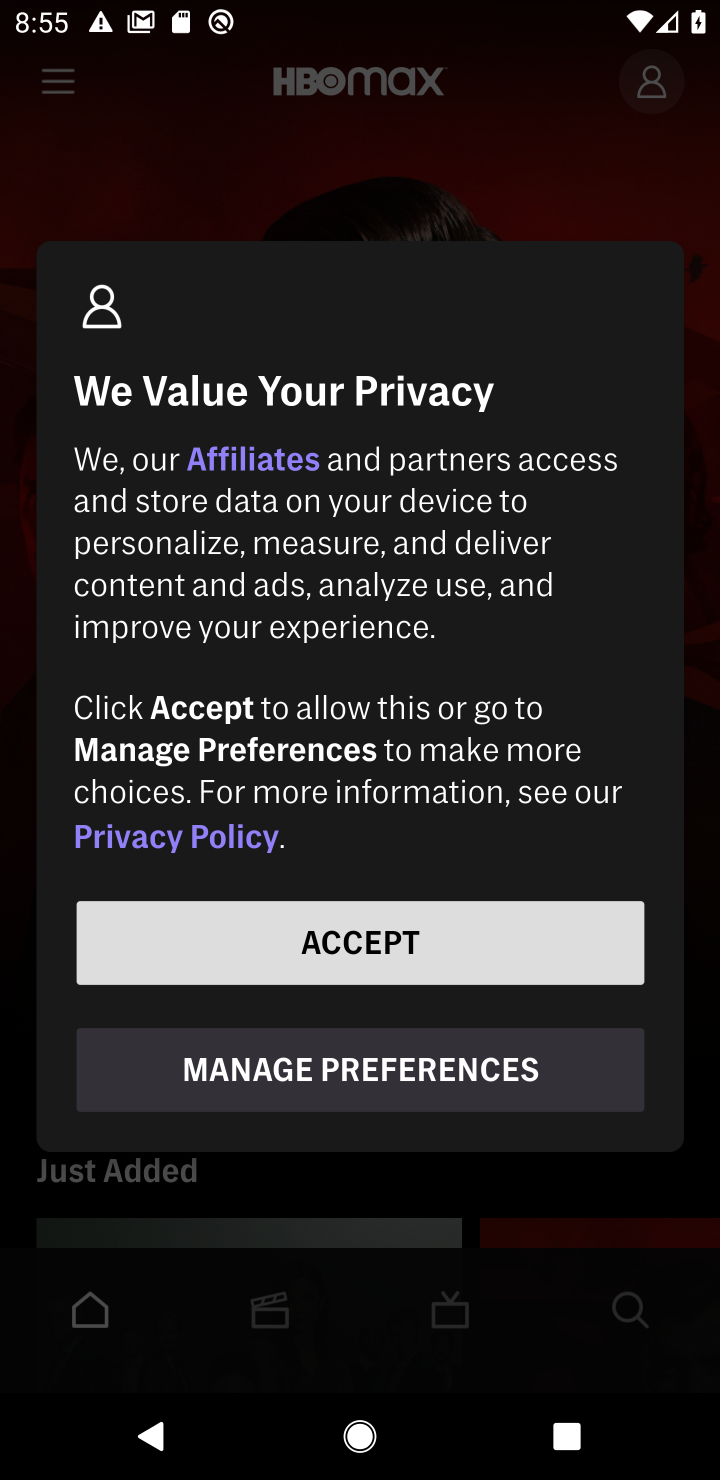
Step 31: task complete